Your task to perform on an android device: turn off translation in the chrome app Image 0: 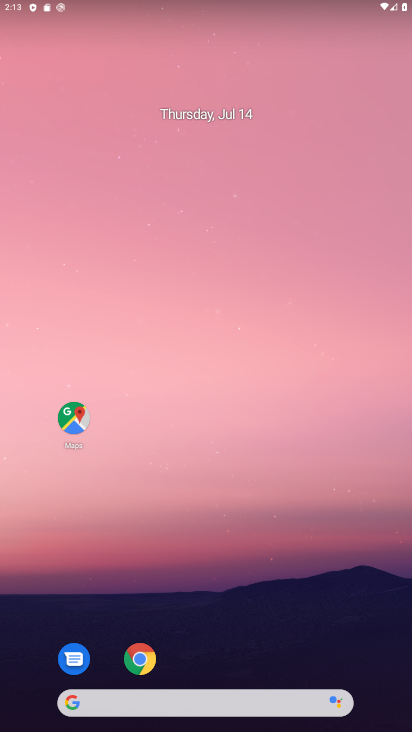
Step 0: press home button
Your task to perform on an android device: turn off translation in the chrome app Image 1: 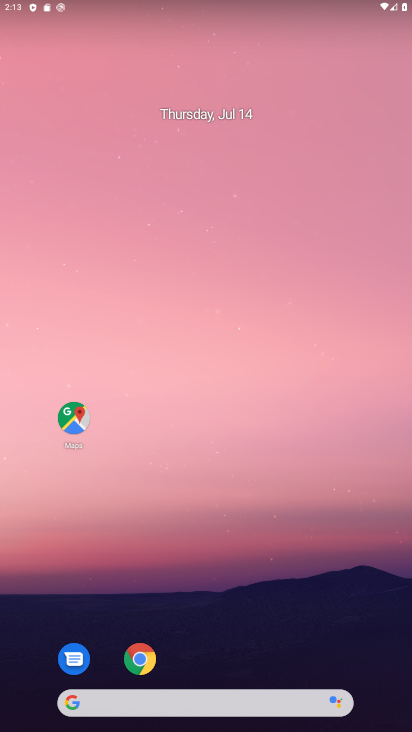
Step 1: drag from (241, 638) to (196, 183)
Your task to perform on an android device: turn off translation in the chrome app Image 2: 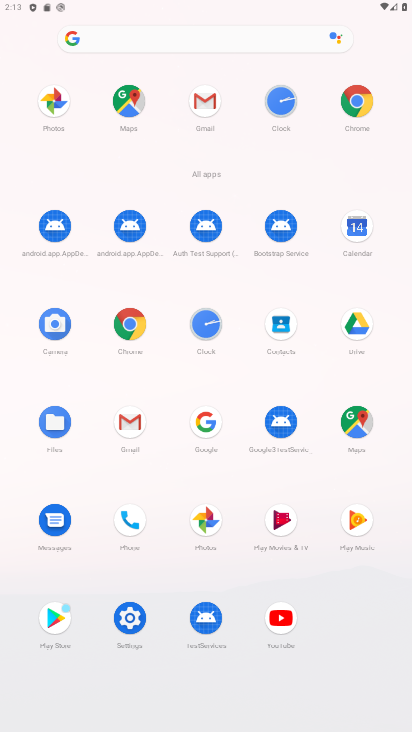
Step 2: click (358, 103)
Your task to perform on an android device: turn off translation in the chrome app Image 3: 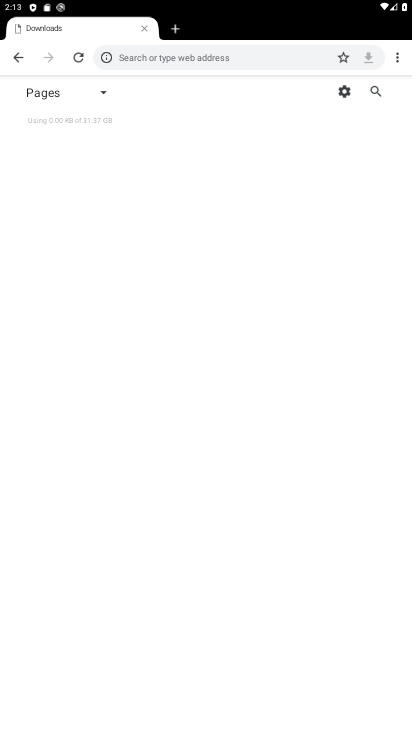
Step 3: drag from (402, 60) to (287, 255)
Your task to perform on an android device: turn off translation in the chrome app Image 4: 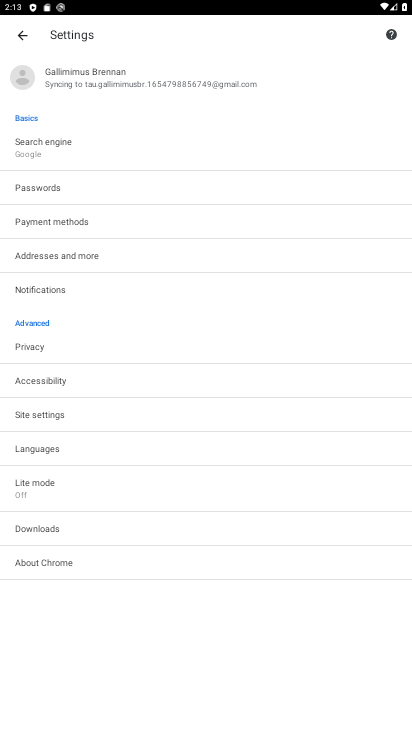
Step 4: click (30, 450)
Your task to perform on an android device: turn off translation in the chrome app Image 5: 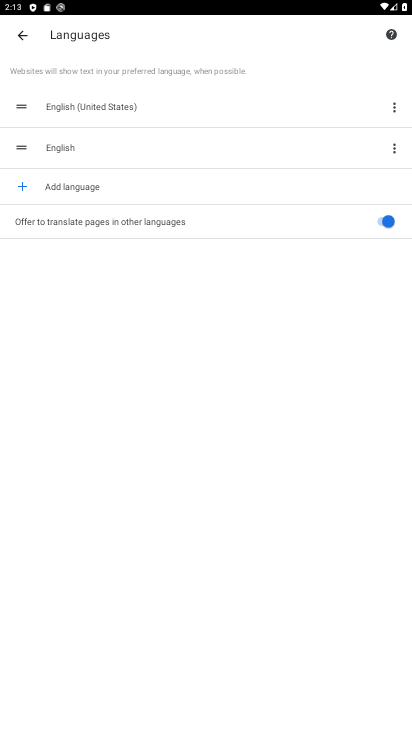
Step 5: click (387, 224)
Your task to perform on an android device: turn off translation in the chrome app Image 6: 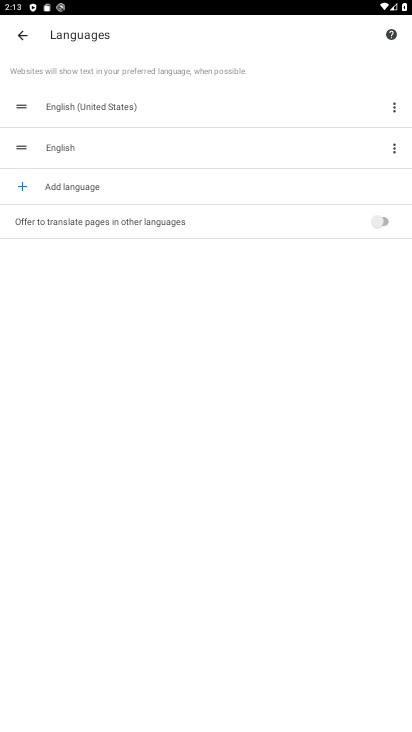
Step 6: task complete